Your task to perform on an android device: Go to Maps Image 0: 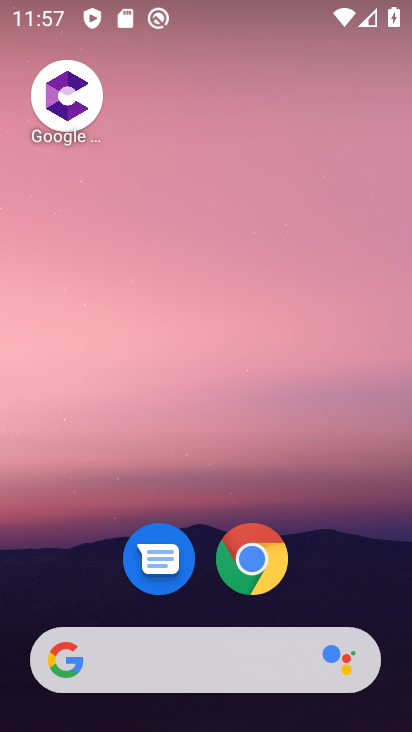
Step 0: drag from (199, 606) to (225, 678)
Your task to perform on an android device: Go to Maps Image 1: 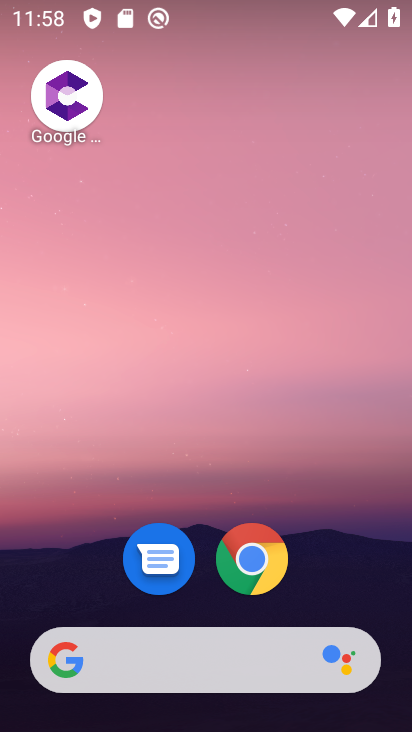
Step 1: drag from (194, 613) to (138, 165)
Your task to perform on an android device: Go to Maps Image 2: 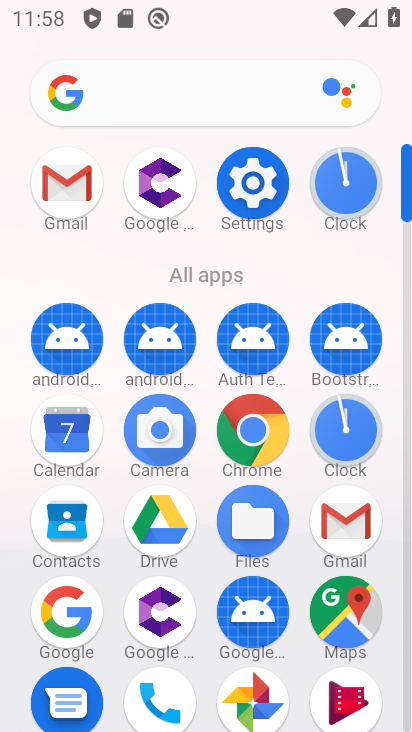
Step 2: click (350, 631)
Your task to perform on an android device: Go to Maps Image 3: 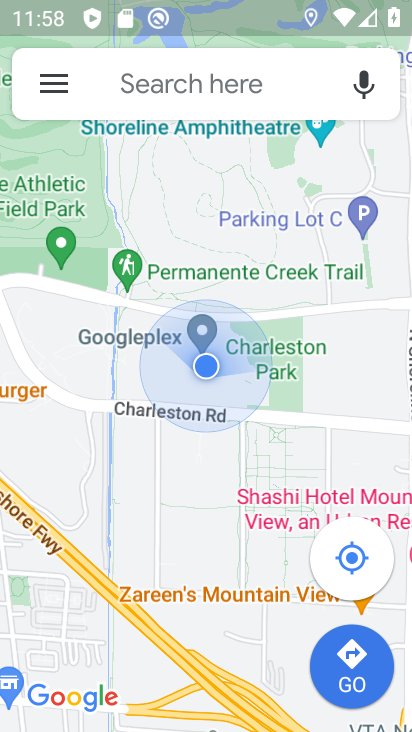
Step 3: task complete